Your task to perform on an android device: set default search engine in the chrome app Image 0: 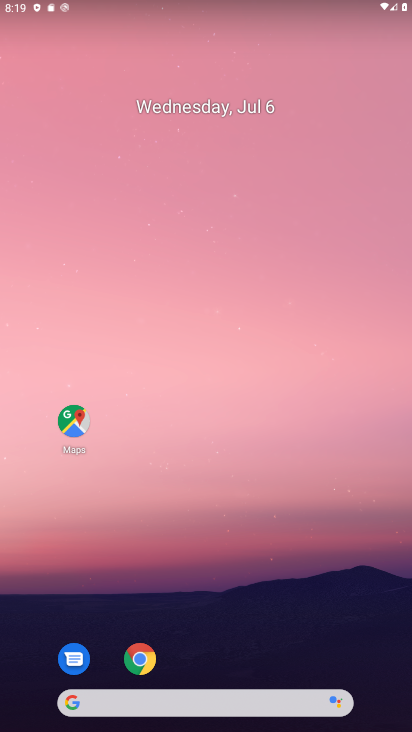
Step 0: drag from (222, 650) to (227, 277)
Your task to perform on an android device: set default search engine in the chrome app Image 1: 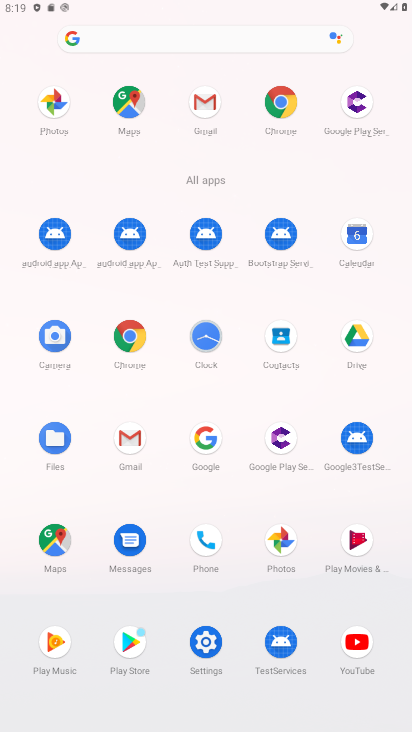
Step 1: click (268, 121)
Your task to perform on an android device: set default search engine in the chrome app Image 2: 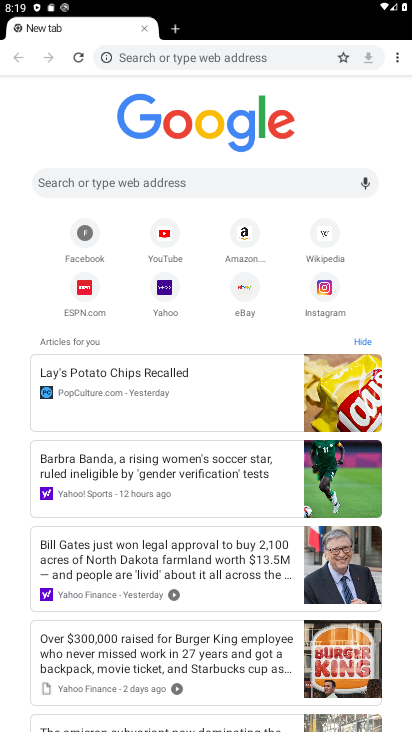
Step 2: click (397, 60)
Your task to perform on an android device: set default search engine in the chrome app Image 3: 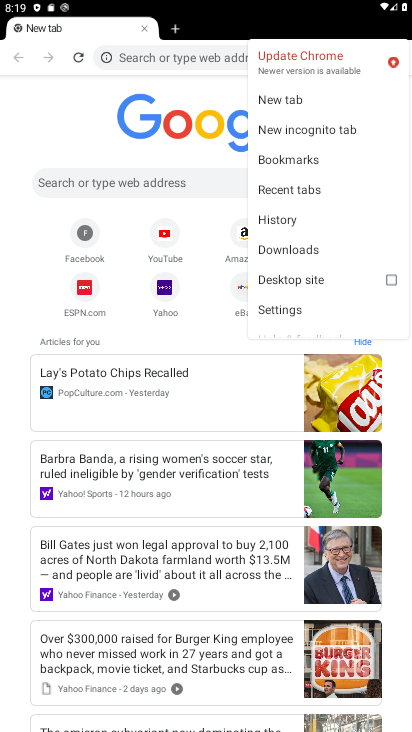
Step 3: click (293, 306)
Your task to perform on an android device: set default search engine in the chrome app Image 4: 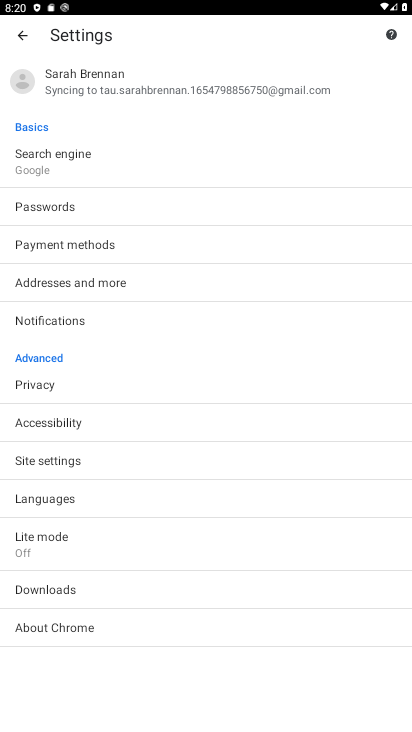
Step 4: click (76, 172)
Your task to perform on an android device: set default search engine in the chrome app Image 5: 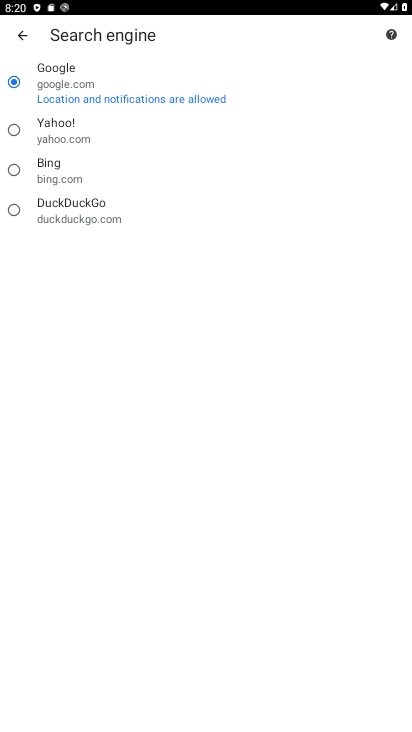
Step 5: task complete